Your task to perform on an android device: What's the weather? Image 0: 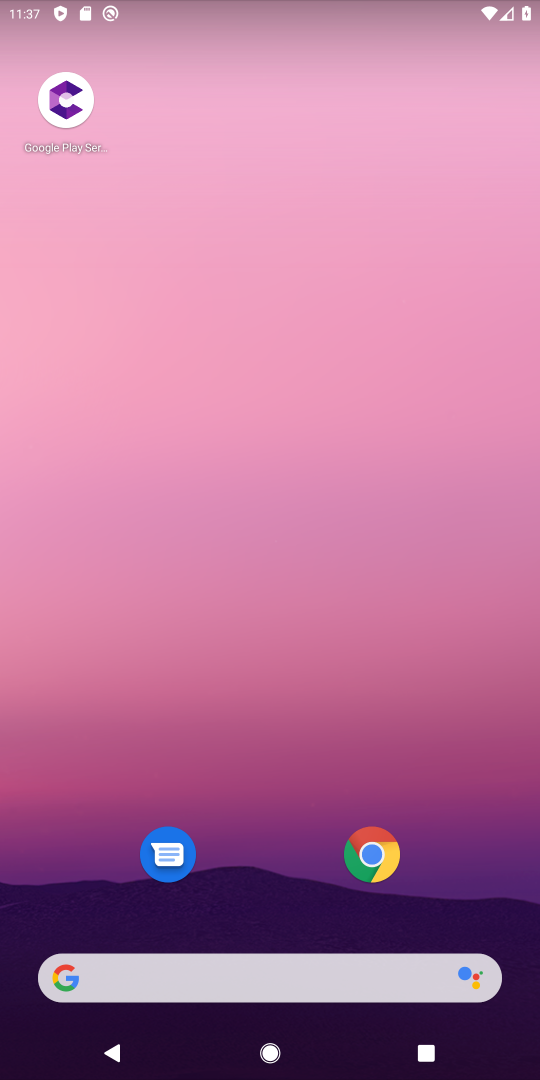
Step 0: drag from (297, 904) to (283, 138)
Your task to perform on an android device: What's the weather? Image 1: 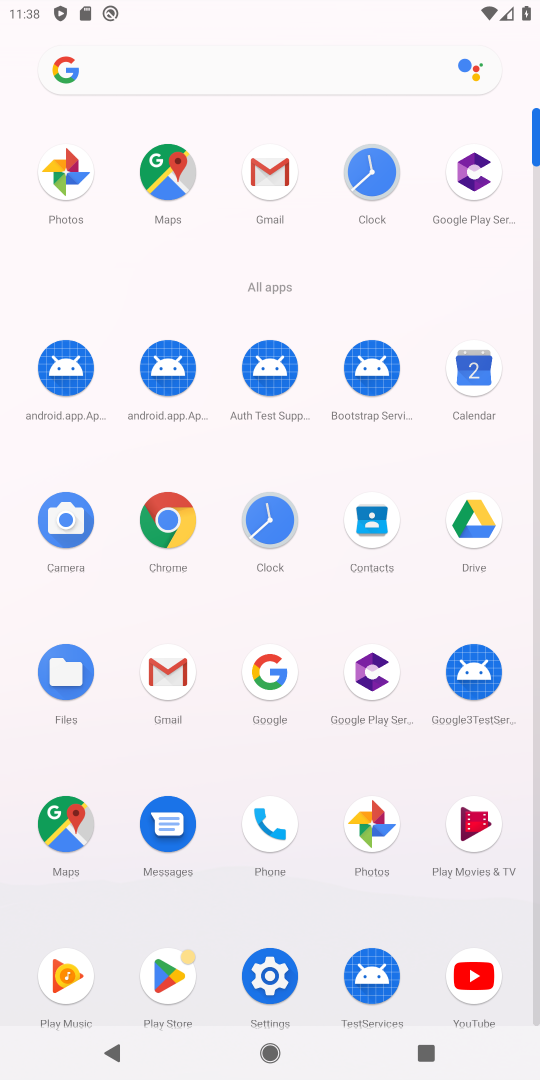
Step 1: drag from (301, 932) to (297, 295)
Your task to perform on an android device: What's the weather? Image 2: 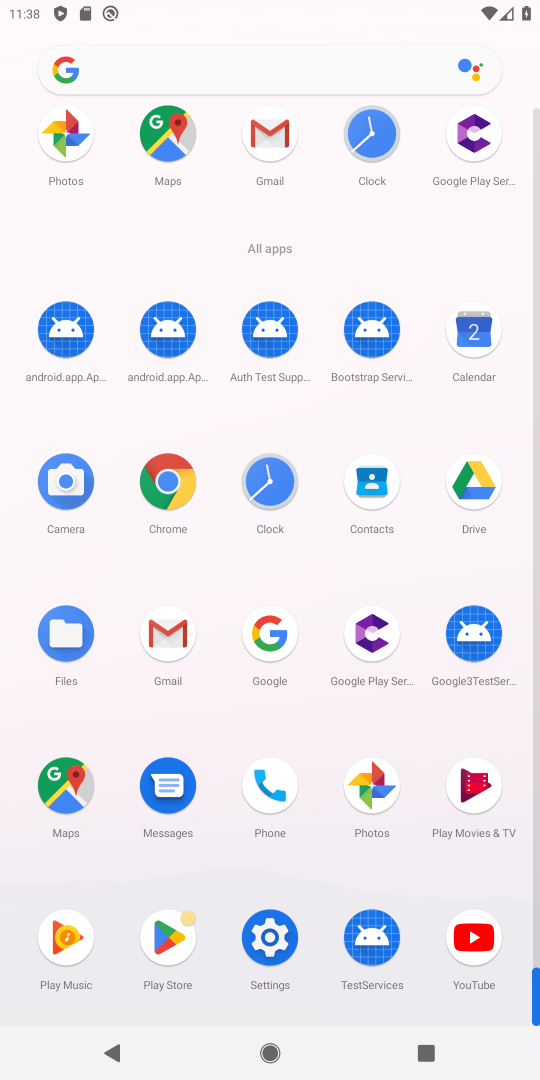
Step 2: click (171, 455)
Your task to perform on an android device: What's the weather? Image 3: 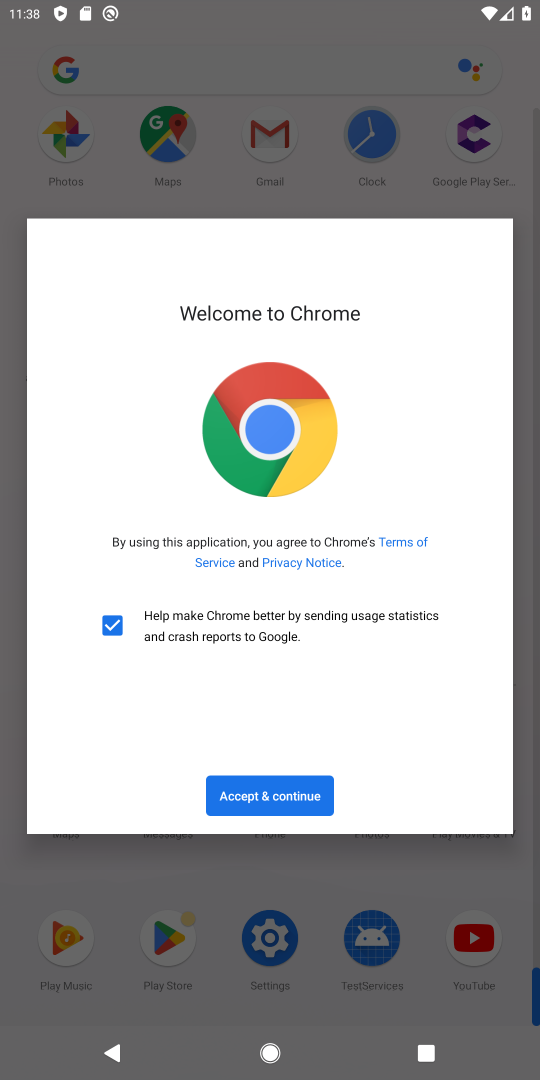
Step 3: click (303, 794)
Your task to perform on an android device: What's the weather? Image 4: 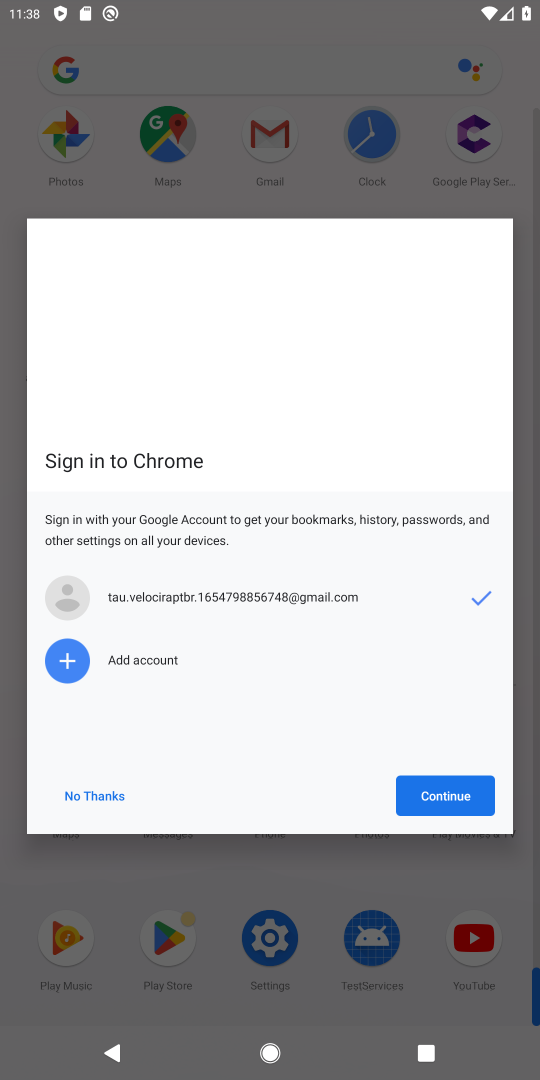
Step 4: click (438, 810)
Your task to perform on an android device: What's the weather? Image 5: 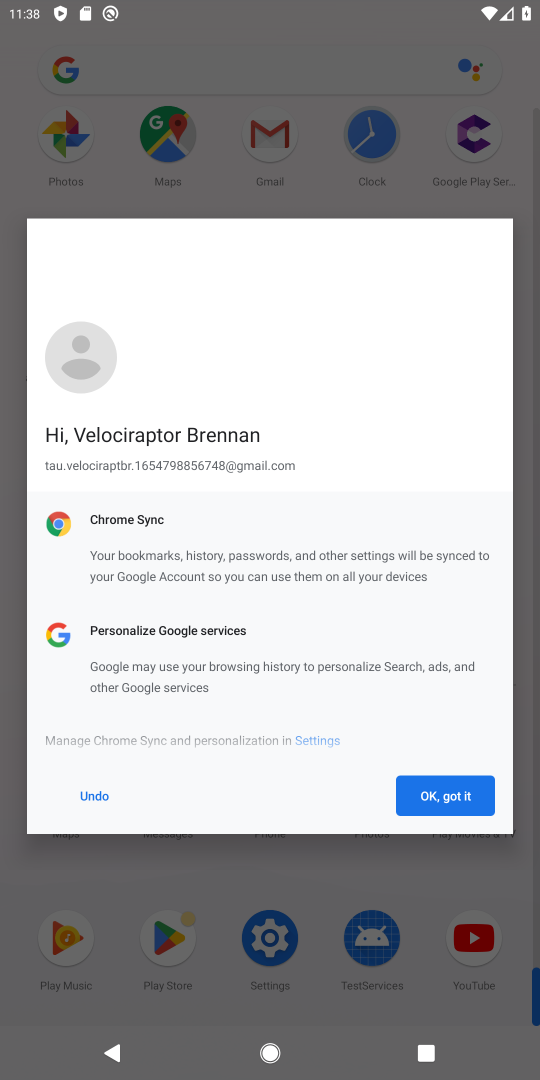
Step 5: click (438, 810)
Your task to perform on an android device: What's the weather? Image 6: 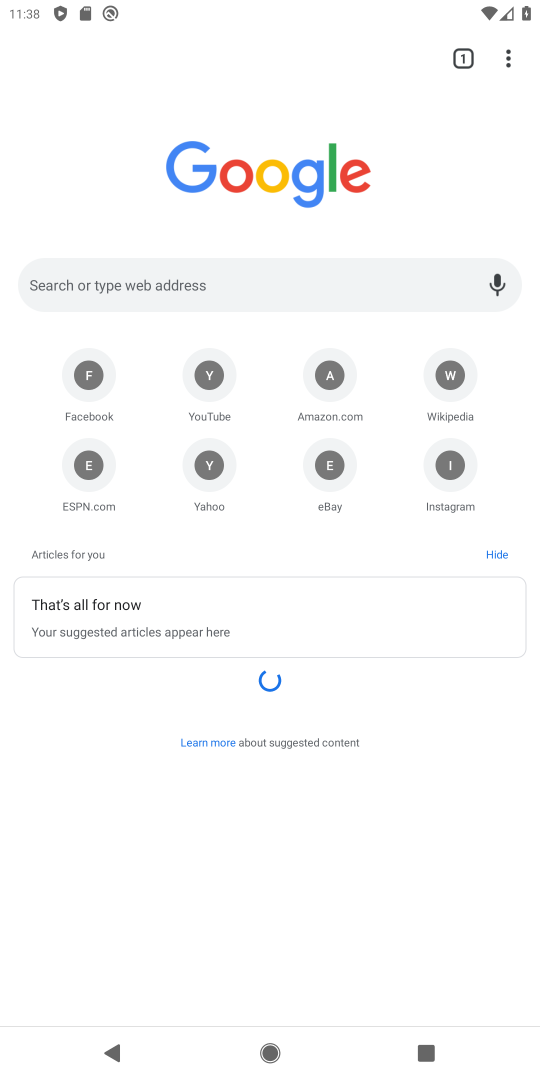
Step 6: click (211, 291)
Your task to perform on an android device: What's the weather? Image 7: 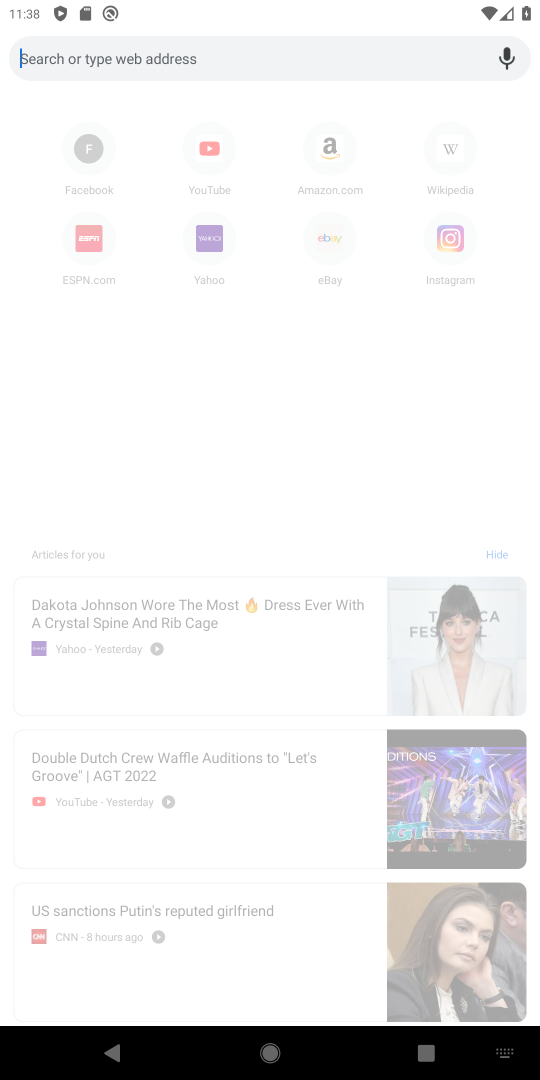
Step 7: type "what's the weather?"
Your task to perform on an android device: What's the weather? Image 8: 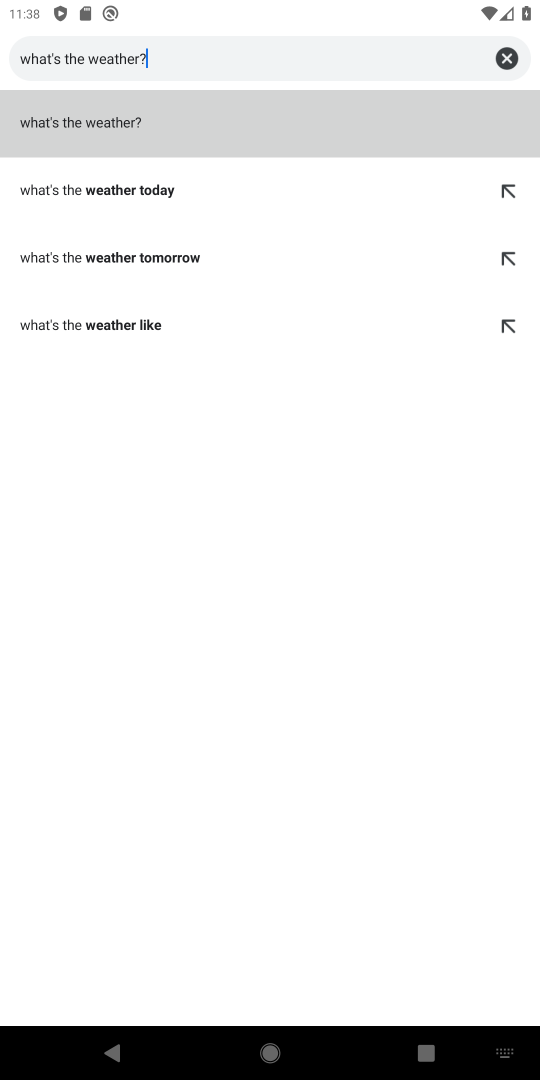
Step 8: click (178, 127)
Your task to perform on an android device: What's the weather? Image 9: 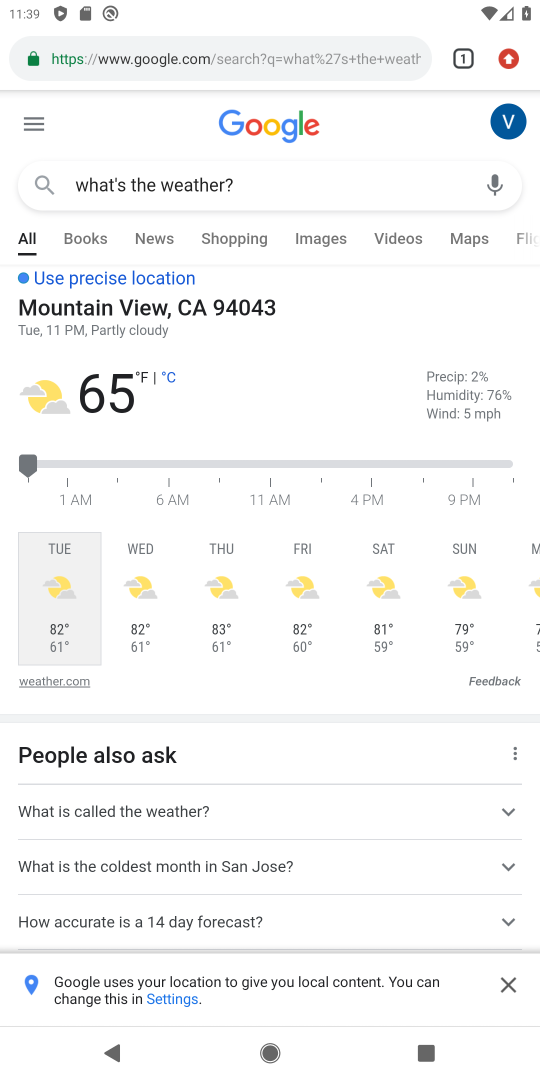
Step 9: task complete